Your task to perform on an android device: toggle location history Image 0: 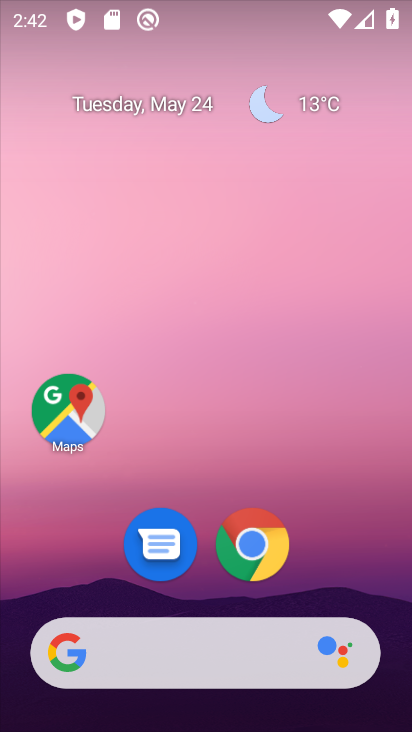
Step 0: drag from (357, 338) to (365, 0)
Your task to perform on an android device: toggle location history Image 1: 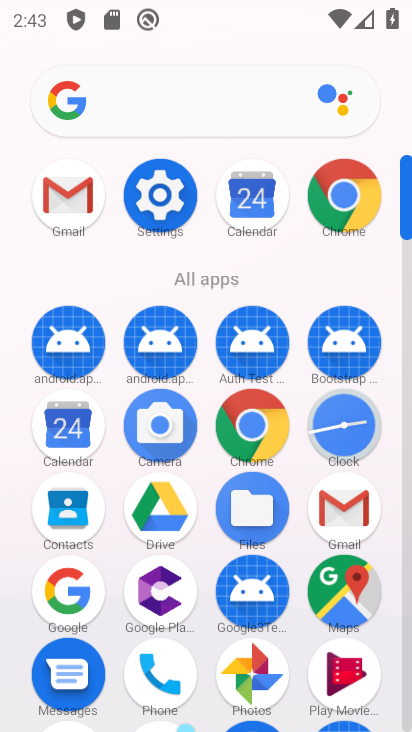
Step 1: click (144, 203)
Your task to perform on an android device: toggle location history Image 2: 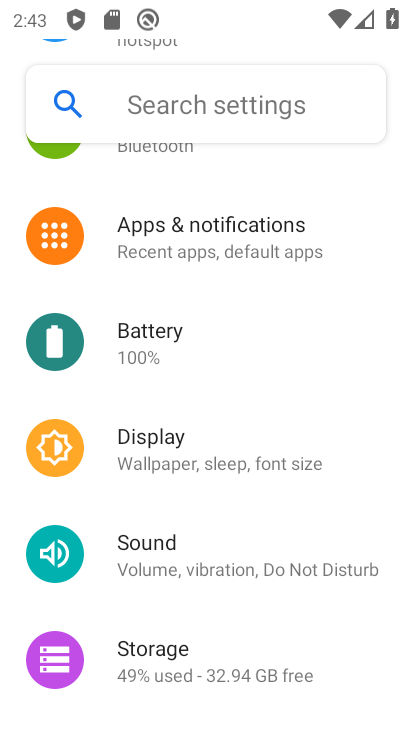
Step 2: drag from (176, 617) to (359, 124)
Your task to perform on an android device: toggle location history Image 3: 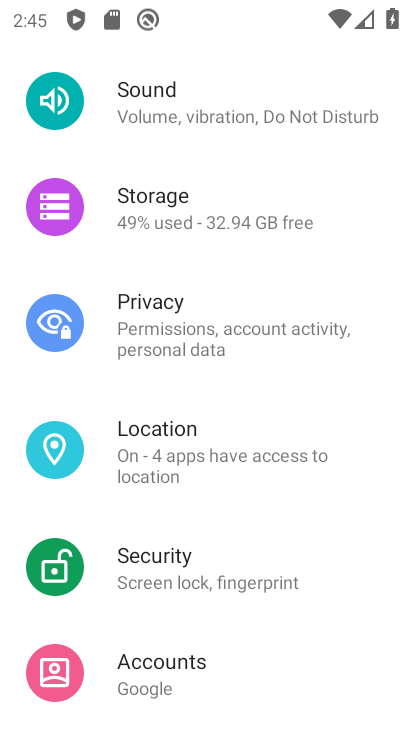
Step 3: click (206, 472)
Your task to perform on an android device: toggle location history Image 4: 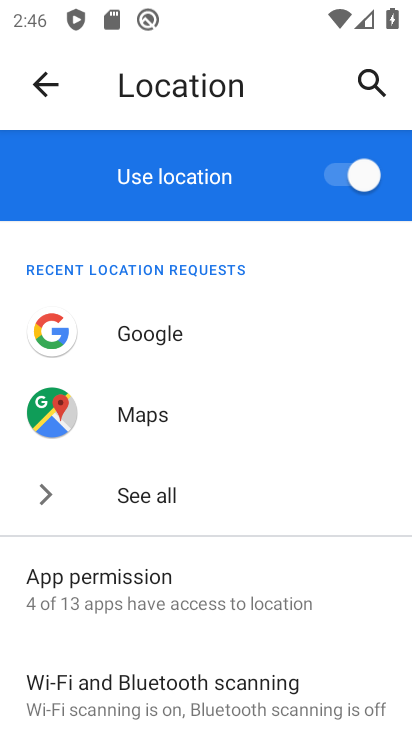
Step 4: drag from (239, 543) to (317, 168)
Your task to perform on an android device: toggle location history Image 5: 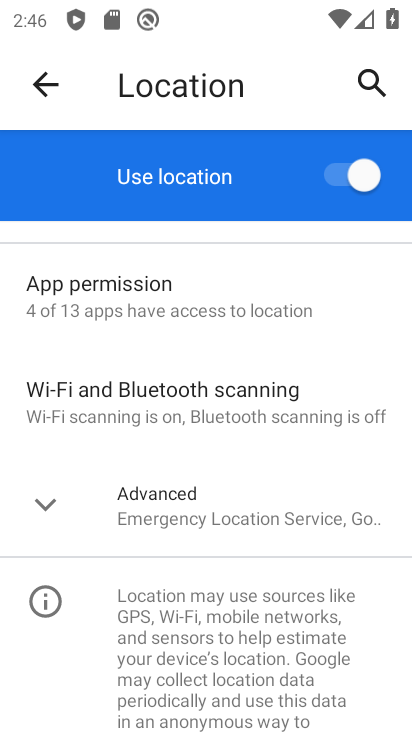
Step 5: drag from (235, 644) to (296, 349)
Your task to perform on an android device: toggle location history Image 6: 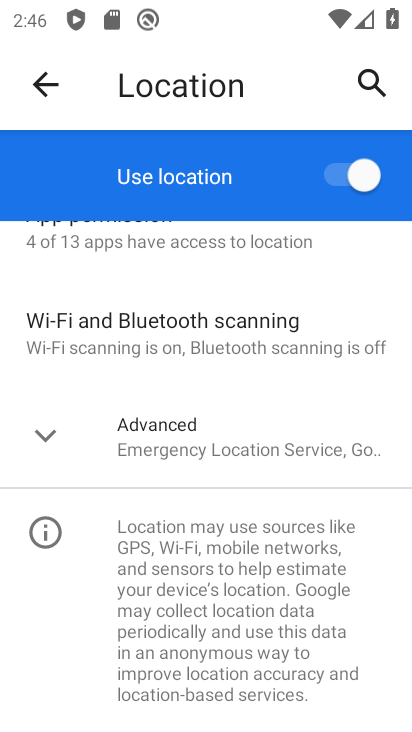
Step 6: click (226, 432)
Your task to perform on an android device: toggle location history Image 7: 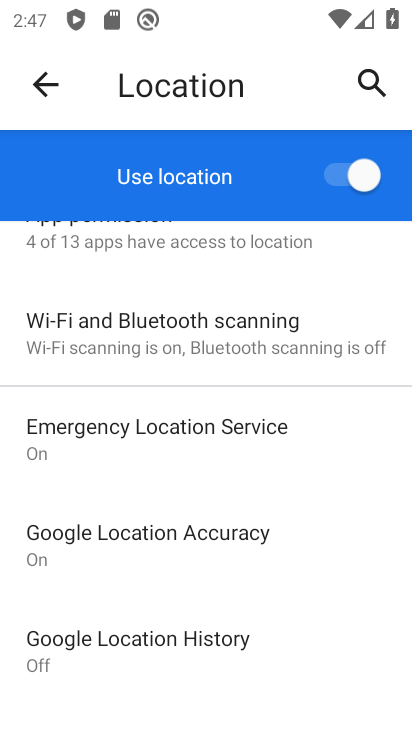
Step 7: click (188, 632)
Your task to perform on an android device: toggle location history Image 8: 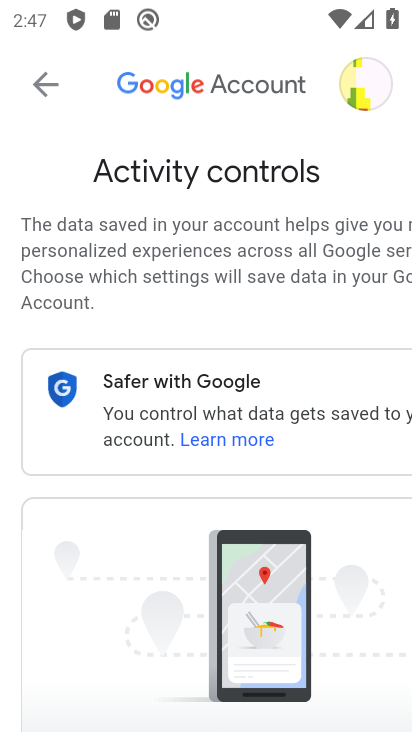
Step 8: drag from (309, 496) to (373, 196)
Your task to perform on an android device: toggle location history Image 9: 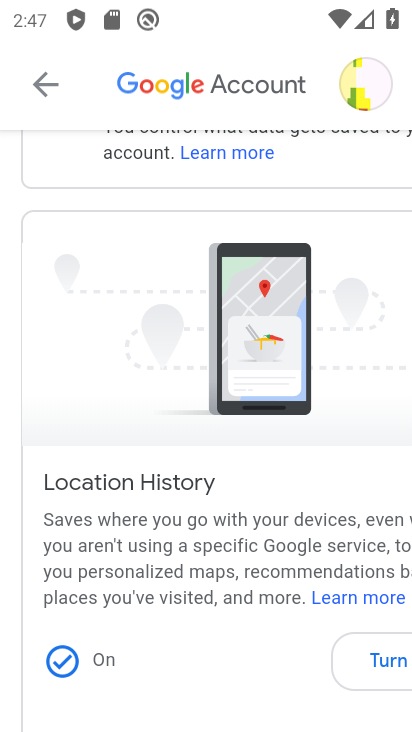
Step 9: click (384, 657)
Your task to perform on an android device: toggle location history Image 10: 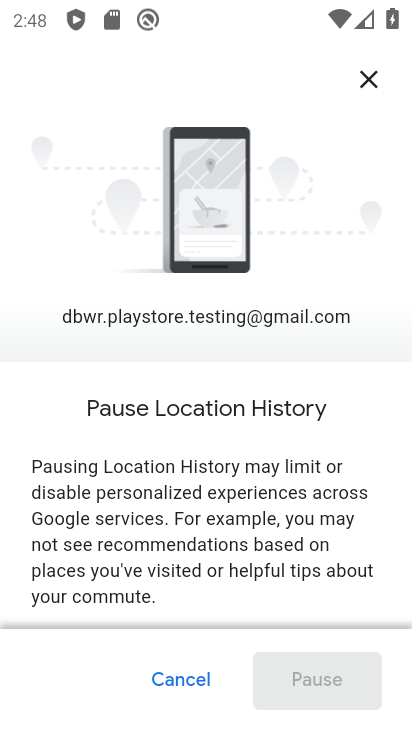
Step 10: drag from (304, 520) to (397, 59)
Your task to perform on an android device: toggle location history Image 11: 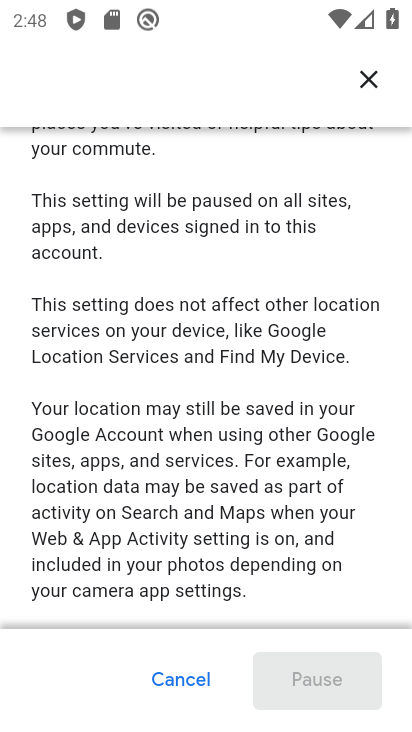
Step 11: drag from (296, 510) to (367, 140)
Your task to perform on an android device: toggle location history Image 12: 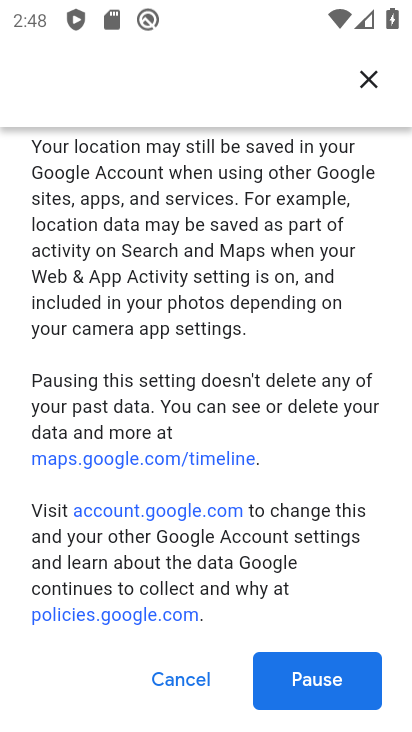
Step 12: click (322, 679)
Your task to perform on an android device: toggle location history Image 13: 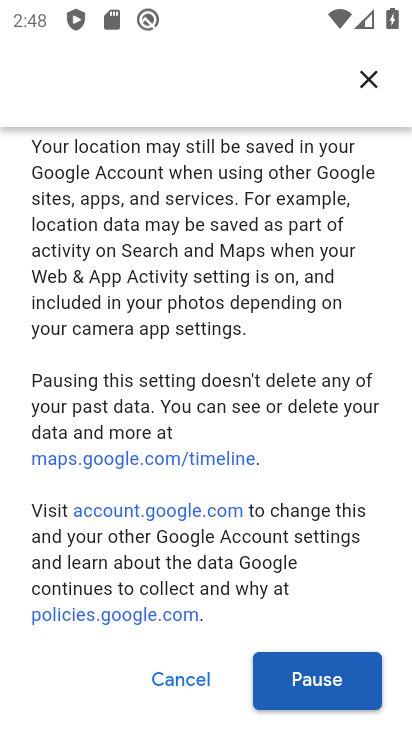
Step 13: click (325, 680)
Your task to perform on an android device: toggle location history Image 14: 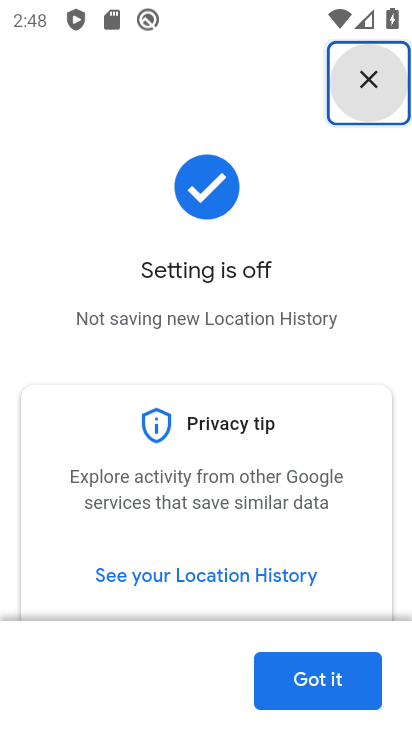
Step 14: task complete